Your task to perform on an android device: change timer sound Image 0: 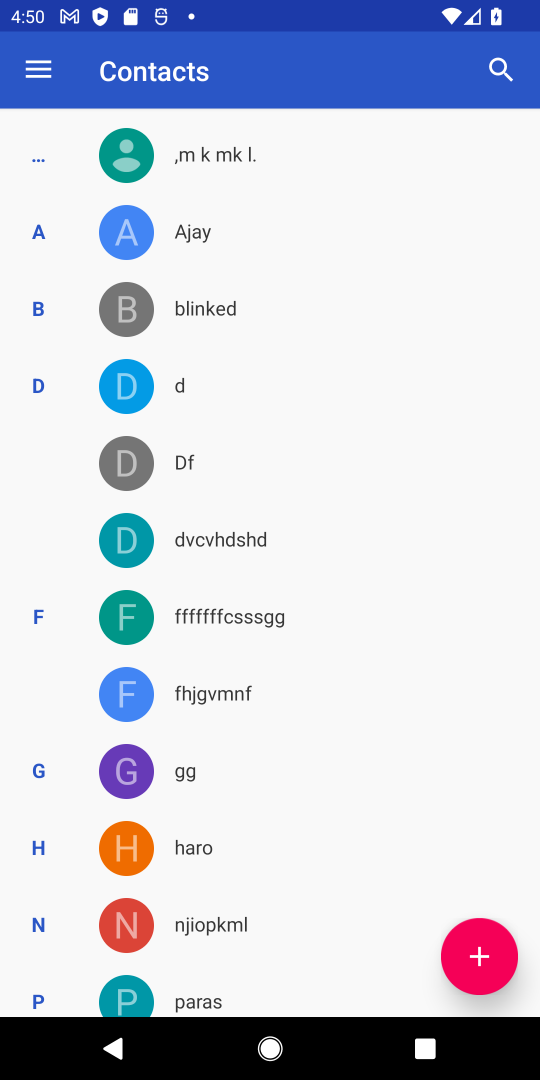
Step 0: press back button
Your task to perform on an android device: change timer sound Image 1: 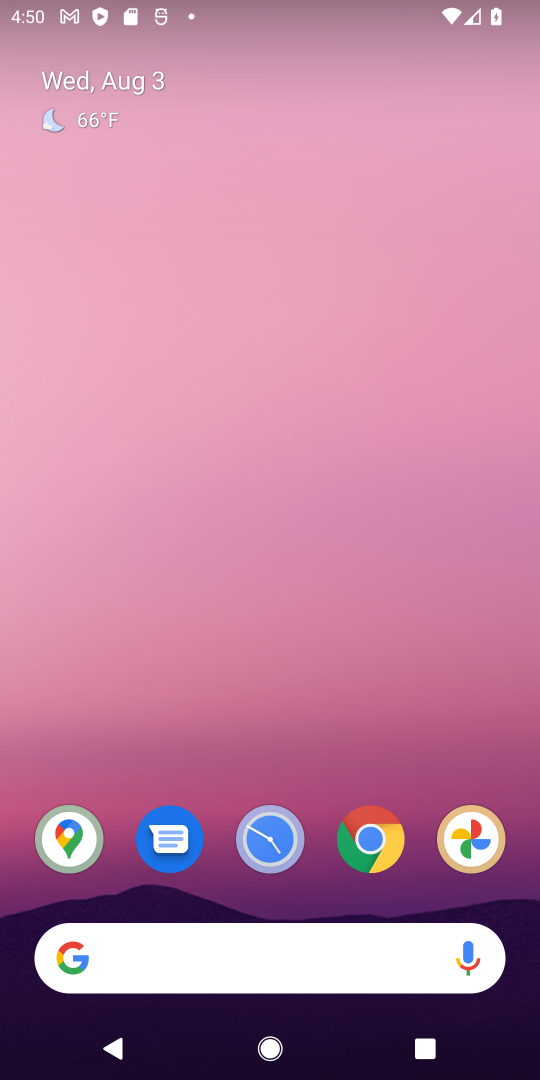
Step 1: click (269, 829)
Your task to perform on an android device: change timer sound Image 2: 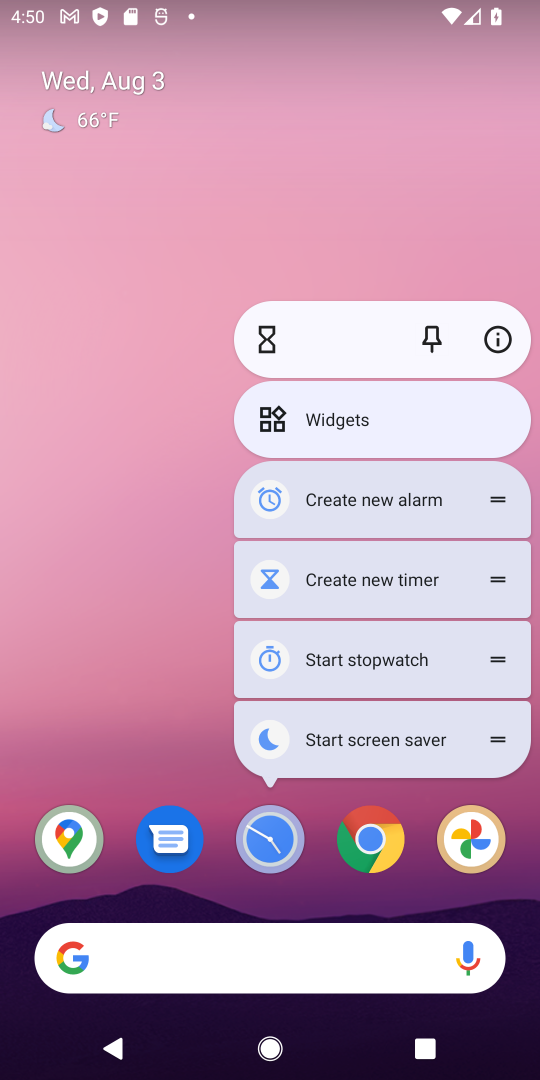
Step 2: click (280, 846)
Your task to perform on an android device: change timer sound Image 3: 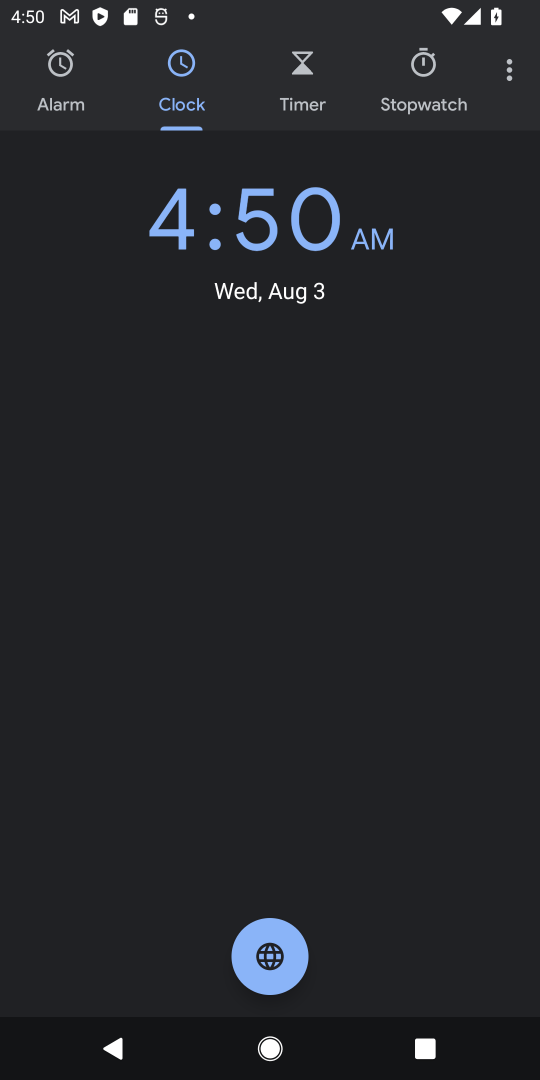
Step 3: click (517, 69)
Your task to perform on an android device: change timer sound Image 4: 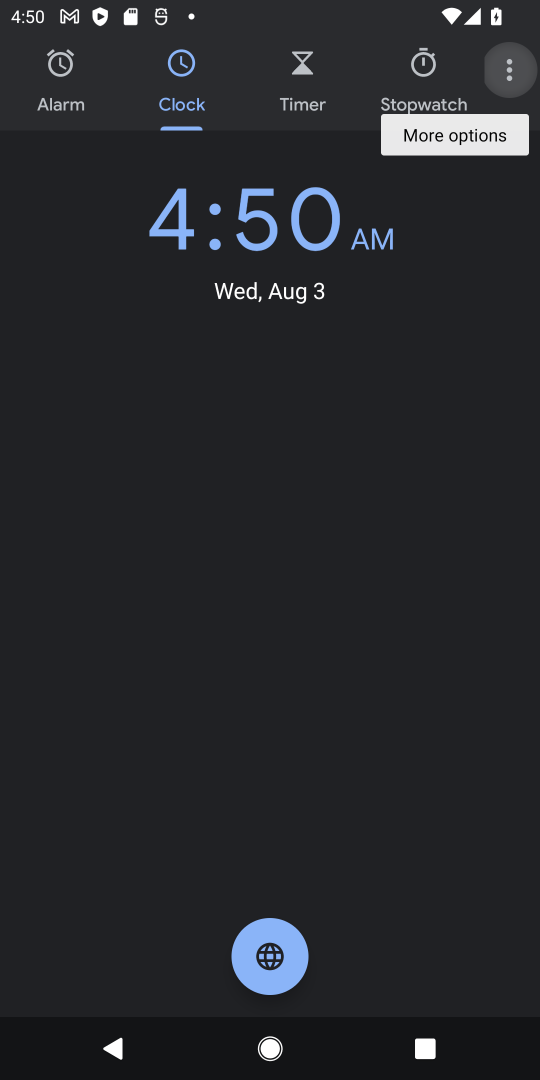
Step 4: click (506, 58)
Your task to perform on an android device: change timer sound Image 5: 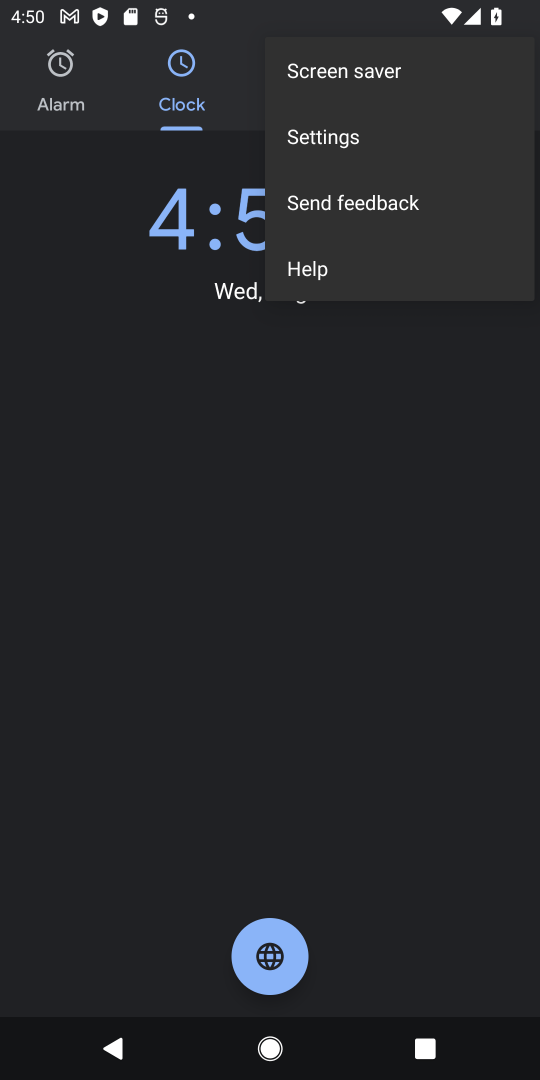
Step 5: click (362, 151)
Your task to perform on an android device: change timer sound Image 6: 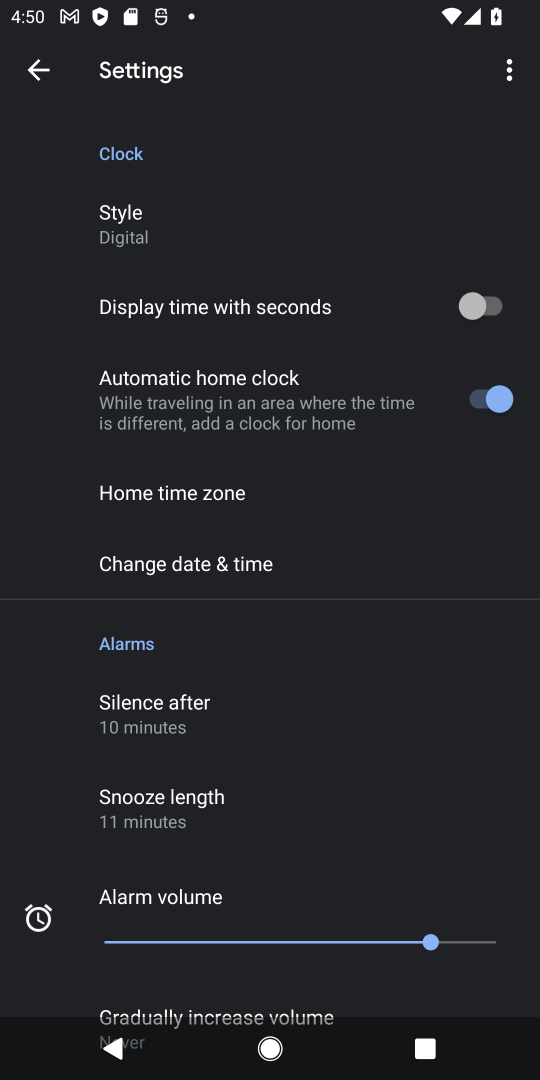
Step 6: drag from (212, 825) to (253, 233)
Your task to perform on an android device: change timer sound Image 7: 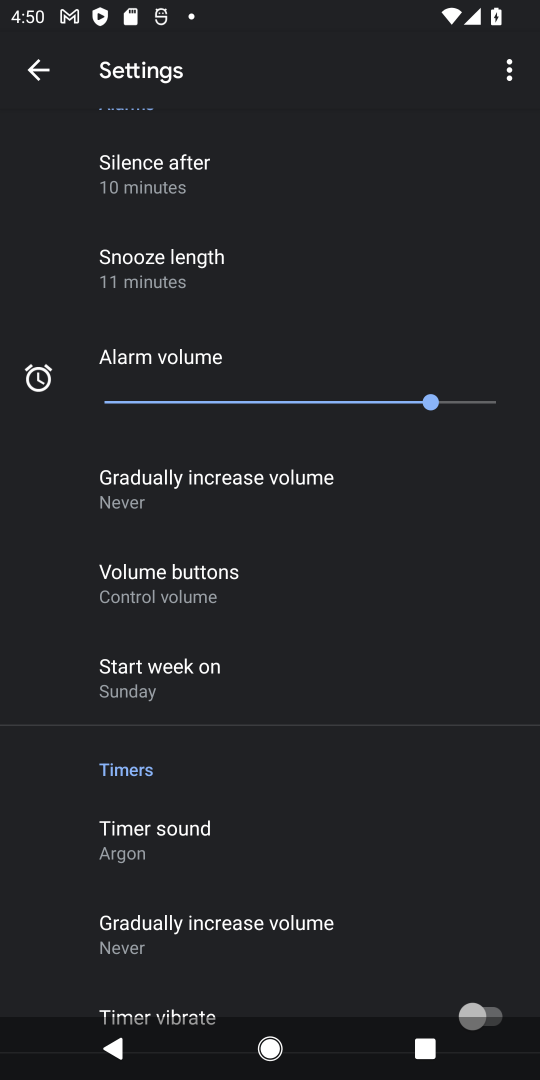
Step 7: click (213, 841)
Your task to perform on an android device: change timer sound Image 8: 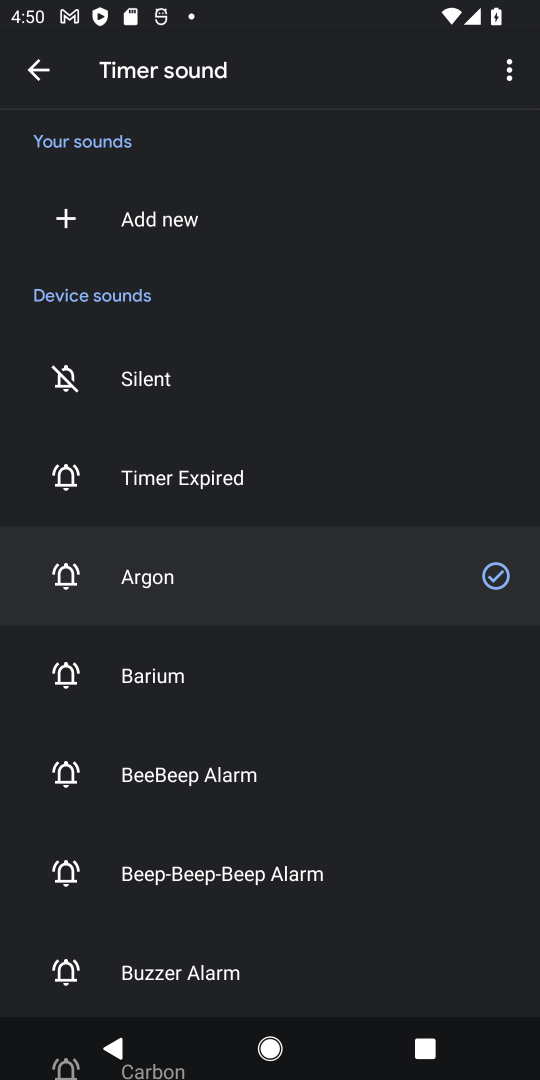
Step 8: click (146, 679)
Your task to perform on an android device: change timer sound Image 9: 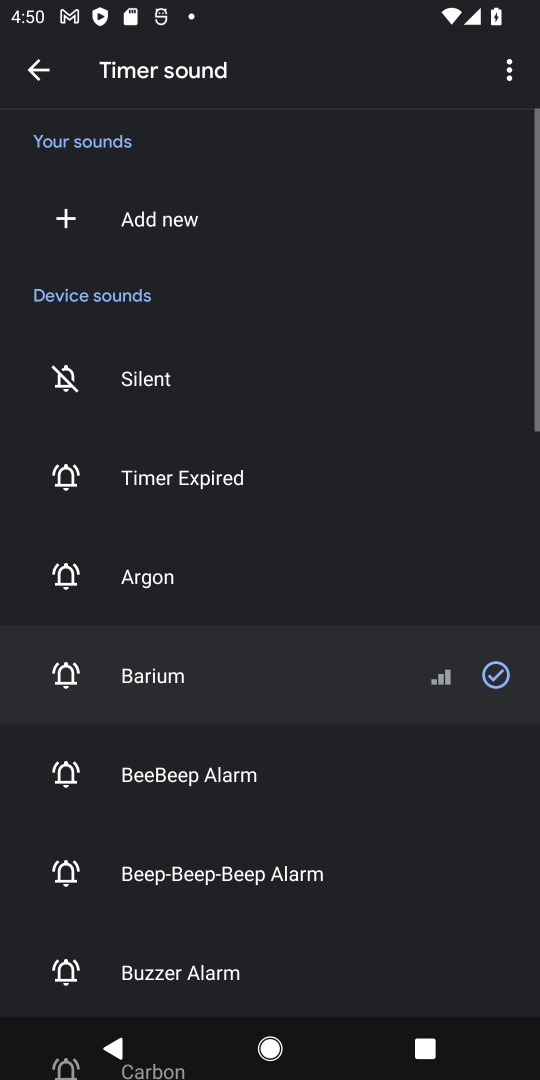
Step 9: task complete